Your task to perform on an android device: turn off smart reply in the gmail app Image 0: 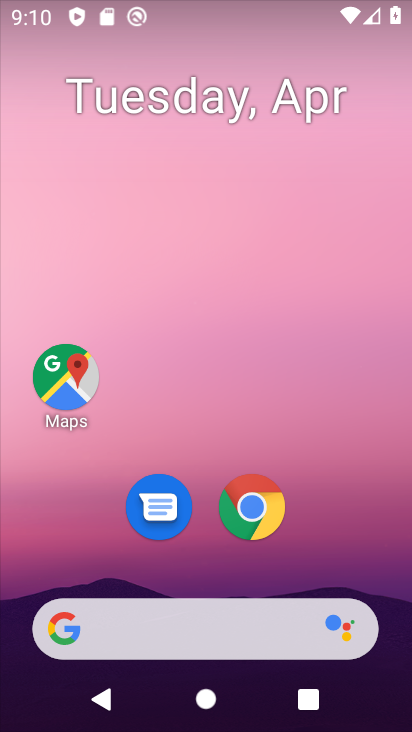
Step 0: drag from (318, 542) to (335, 118)
Your task to perform on an android device: turn off smart reply in the gmail app Image 1: 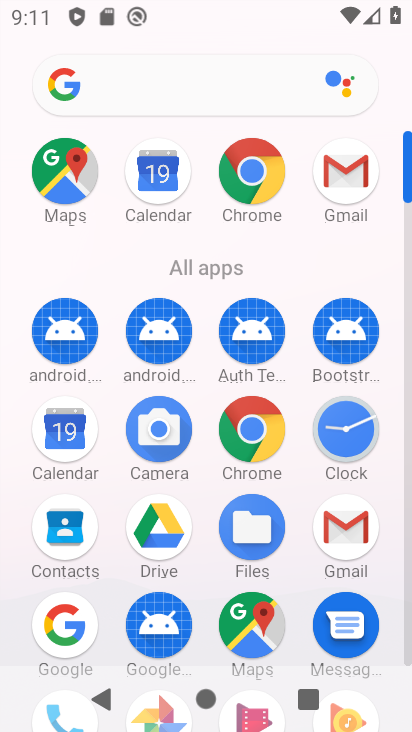
Step 1: click (334, 536)
Your task to perform on an android device: turn off smart reply in the gmail app Image 2: 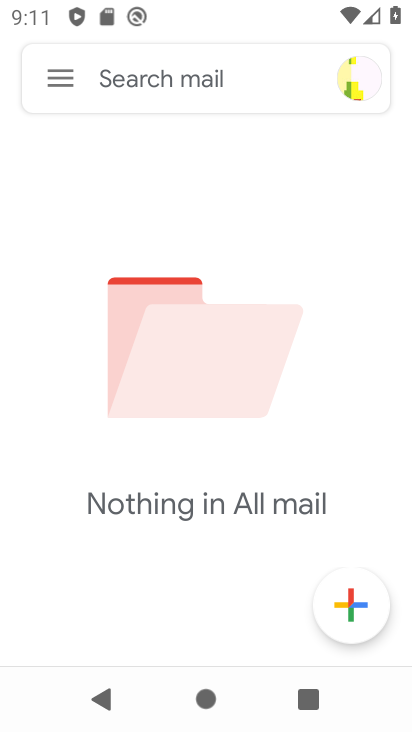
Step 2: click (72, 77)
Your task to perform on an android device: turn off smart reply in the gmail app Image 3: 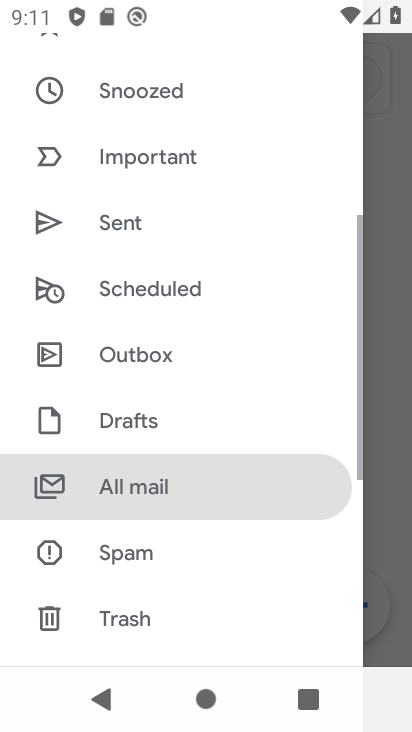
Step 3: drag from (158, 551) to (251, 49)
Your task to perform on an android device: turn off smart reply in the gmail app Image 4: 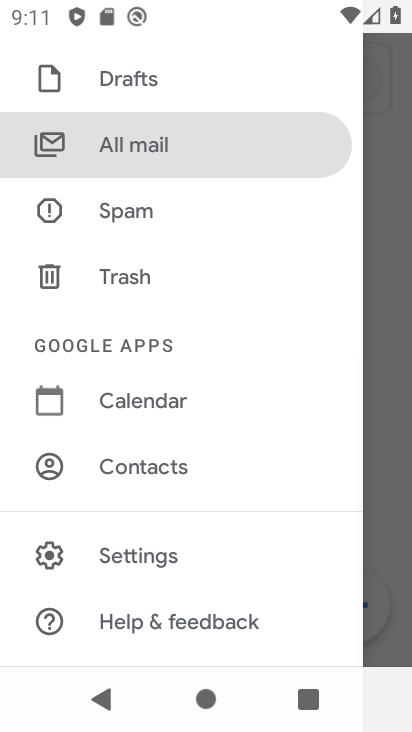
Step 4: click (162, 561)
Your task to perform on an android device: turn off smart reply in the gmail app Image 5: 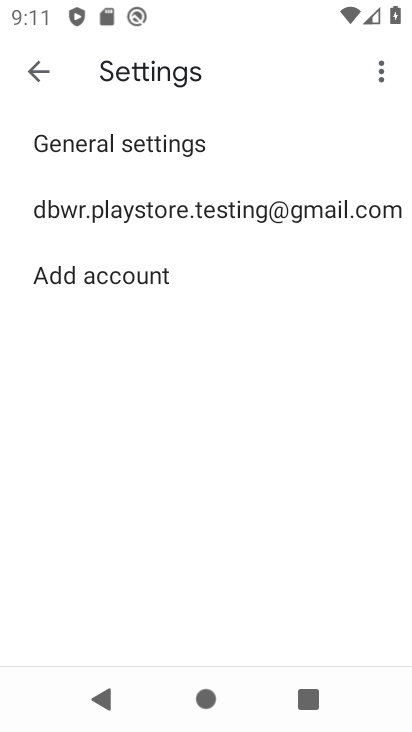
Step 5: click (195, 223)
Your task to perform on an android device: turn off smart reply in the gmail app Image 6: 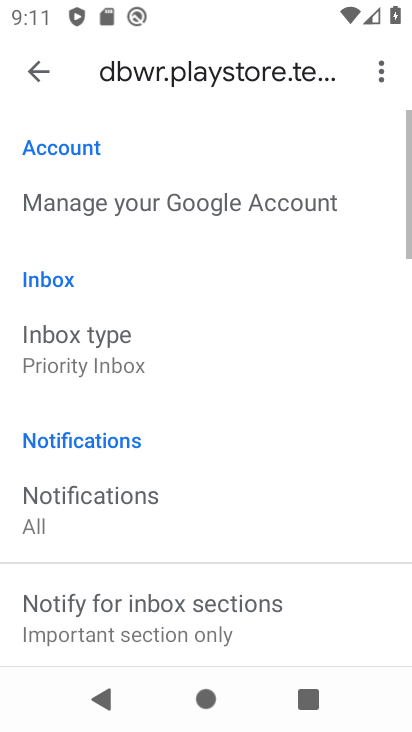
Step 6: drag from (188, 527) to (238, 87)
Your task to perform on an android device: turn off smart reply in the gmail app Image 7: 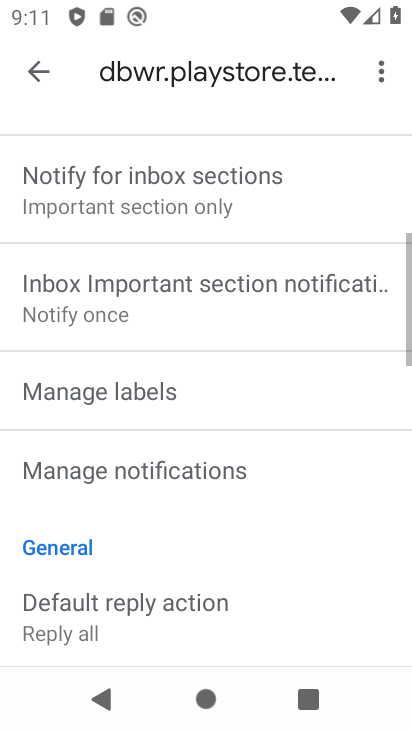
Step 7: drag from (222, 508) to (348, 110)
Your task to perform on an android device: turn off smart reply in the gmail app Image 8: 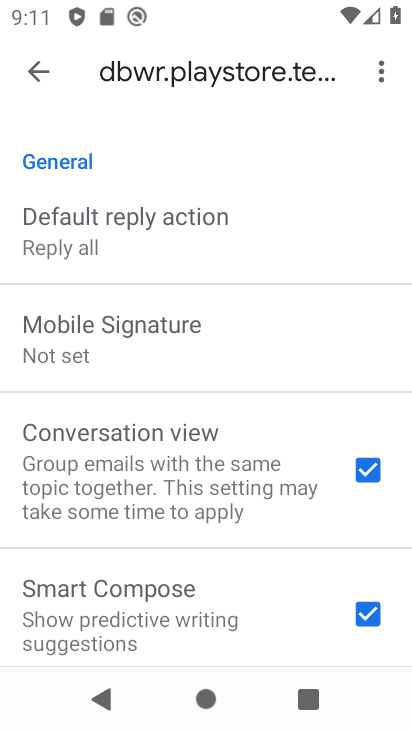
Step 8: drag from (232, 557) to (275, 202)
Your task to perform on an android device: turn off smart reply in the gmail app Image 9: 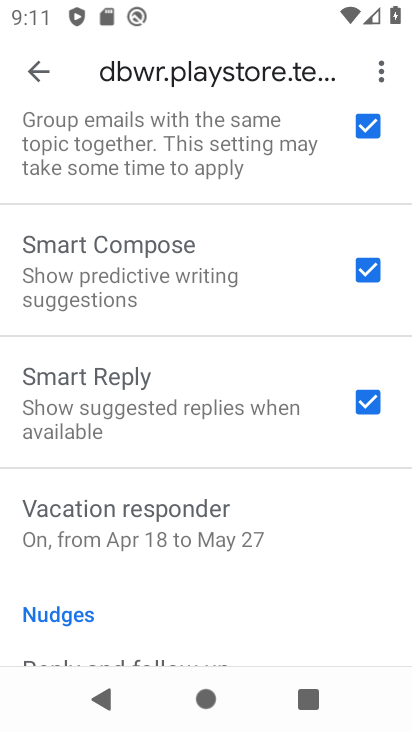
Step 9: click (357, 404)
Your task to perform on an android device: turn off smart reply in the gmail app Image 10: 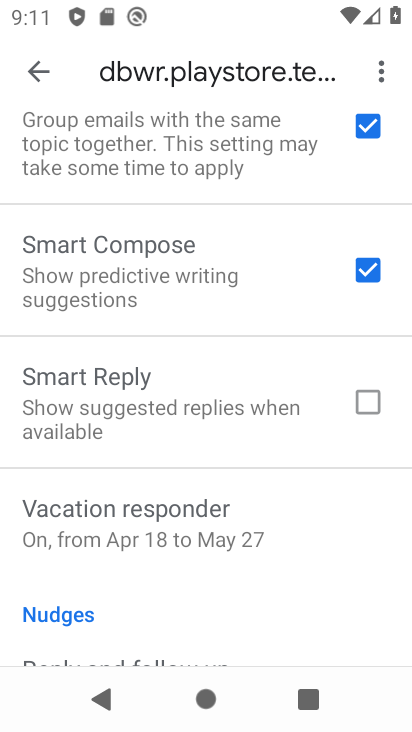
Step 10: task complete